Your task to perform on an android device: Open battery settings Image 0: 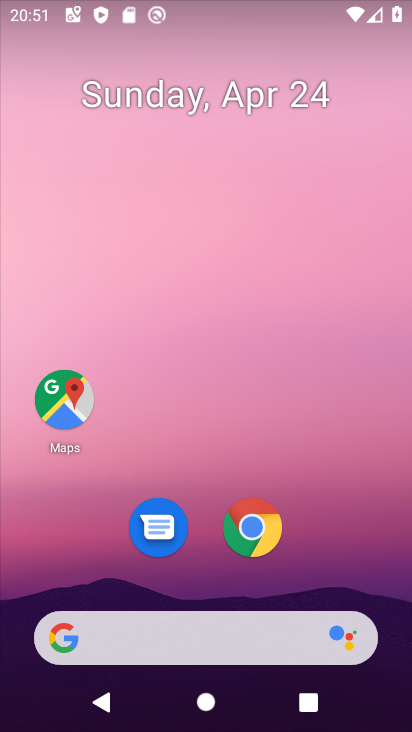
Step 0: drag from (411, 425) to (411, 285)
Your task to perform on an android device: Open battery settings Image 1: 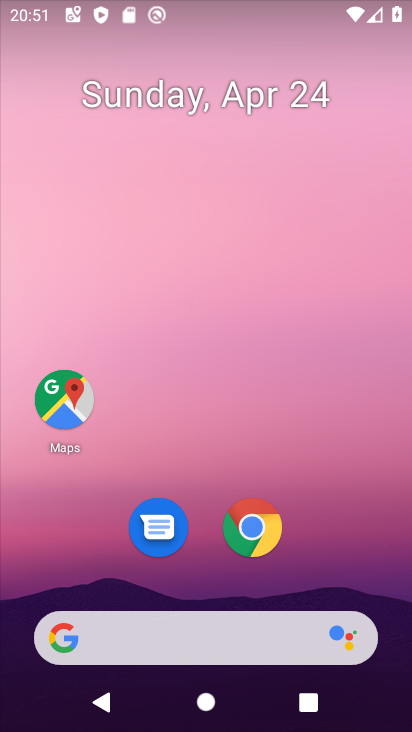
Step 1: drag from (371, 561) to (397, 17)
Your task to perform on an android device: Open battery settings Image 2: 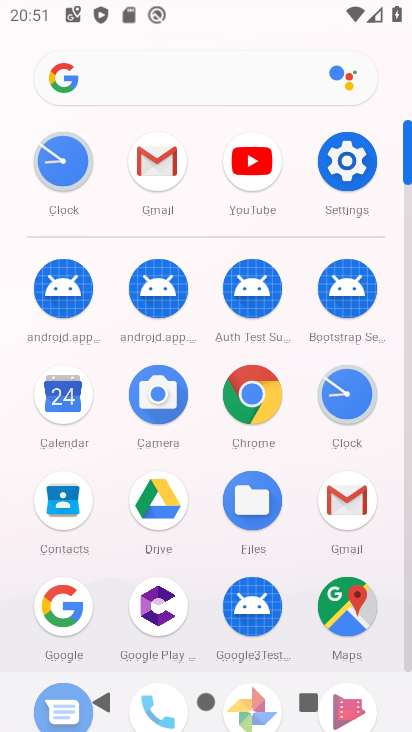
Step 2: click (352, 171)
Your task to perform on an android device: Open battery settings Image 3: 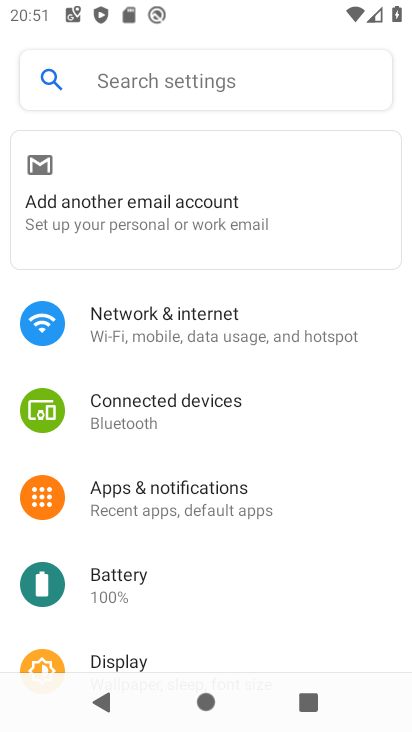
Step 3: click (111, 591)
Your task to perform on an android device: Open battery settings Image 4: 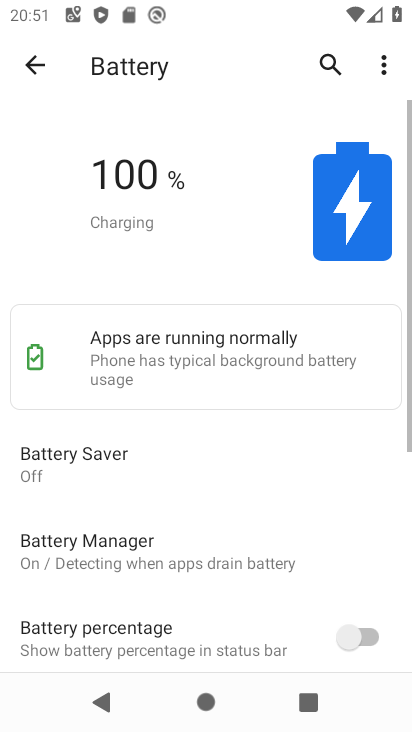
Step 4: task complete